Your task to perform on an android device: clear history in the chrome app Image 0: 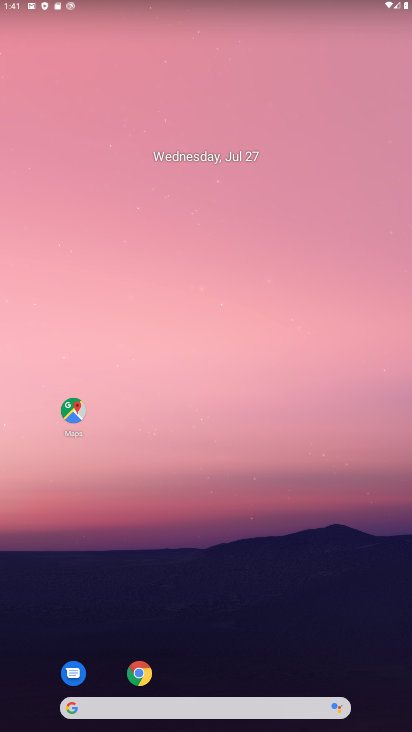
Step 0: click (134, 664)
Your task to perform on an android device: clear history in the chrome app Image 1: 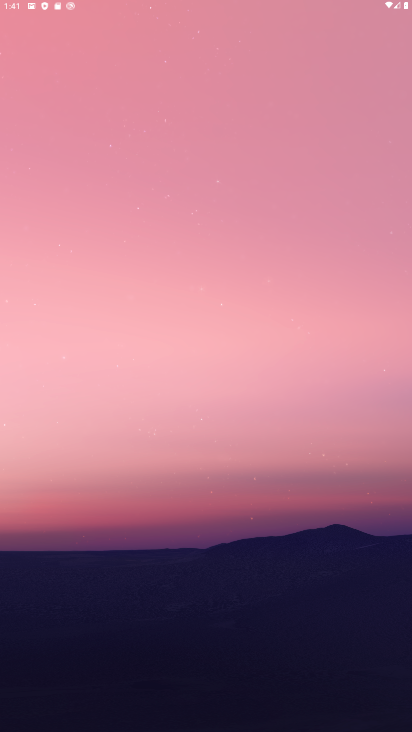
Step 1: click (143, 676)
Your task to perform on an android device: clear history in the chrome app Image 2: 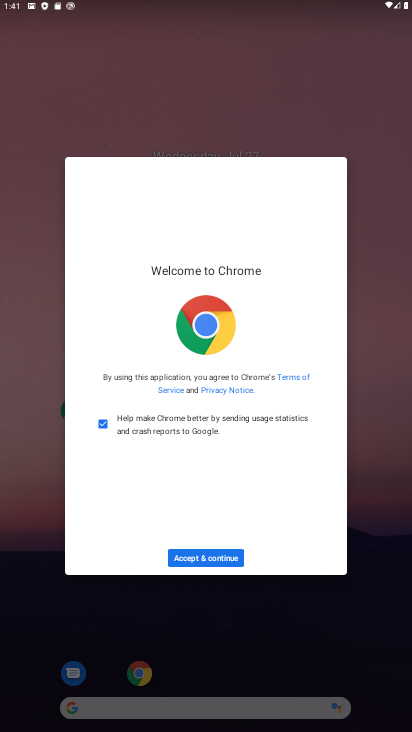
Step 2: click (190, 558)
Your task to perform on an android device: clear history in the chrome app Image 3: 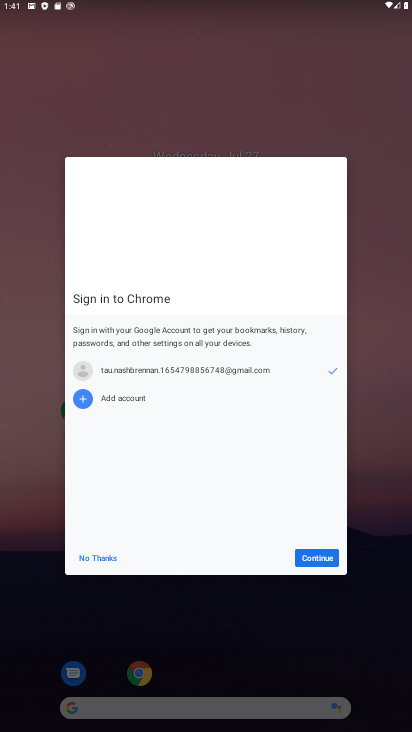
Step 3: click (310, 558)
Your task to perform on an android device: clear history in the chrome app Image 4: 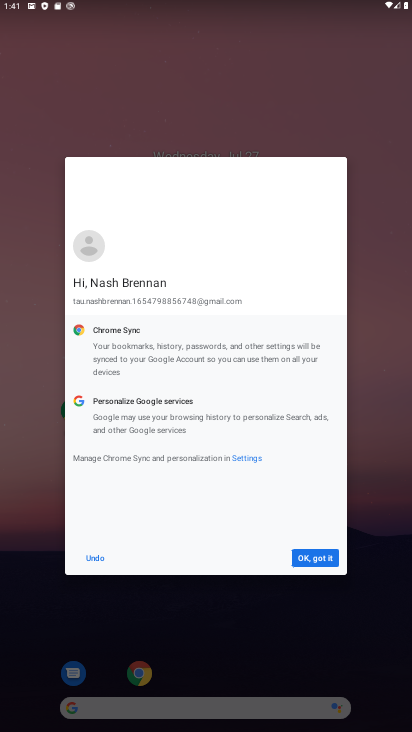
Step 4: click (310, 558)
Your task to perform on an android device: clear history in the chrome app Image 5: 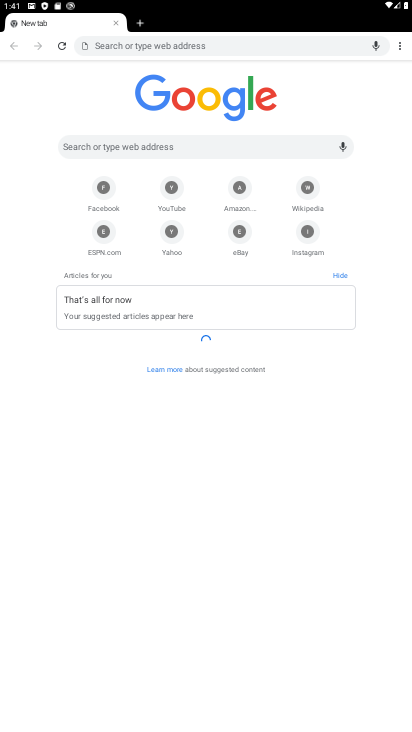
Step 5: click (406, 49)
Your task to perform on an android device: clear history in the chrome app Image 6: 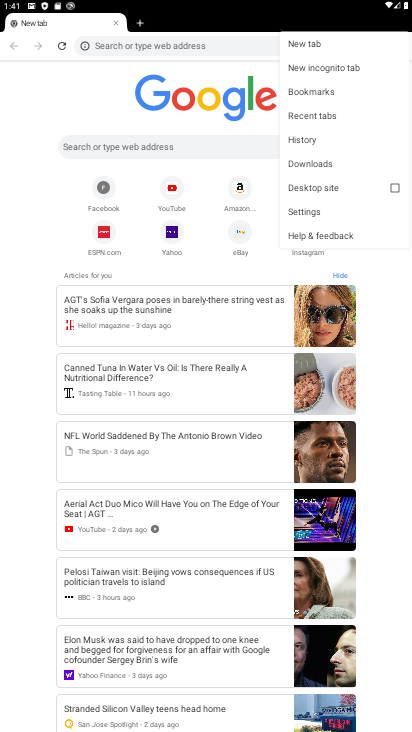
Step 6: click (308, 137)
Your task to perform on an android device: clear history in the chrome app Image 7: 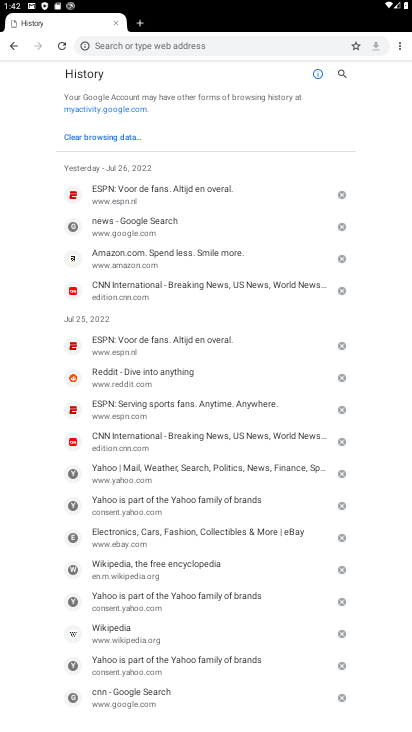
Step 7: click (105, 147)
Your task to perform on an android device: clear history in the chrome app Image 8: 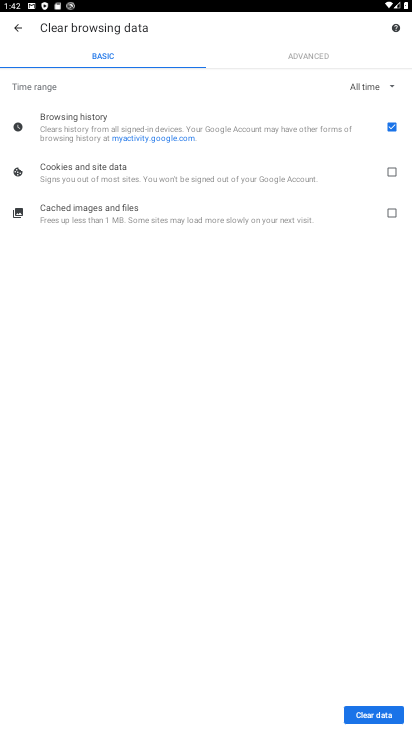
Step 8: click (372, 715)
Your task to perform on an android device: clear history in the chrome app Image 9: 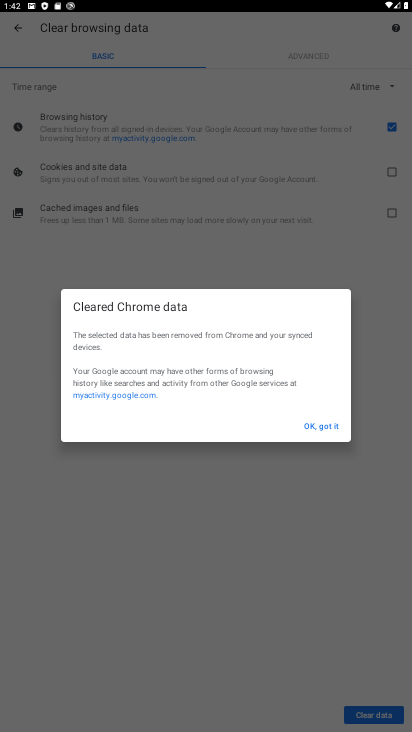
Step 9: click (317, 430)
Your task to perform on an android device: clear history in the chrome app Image 10: 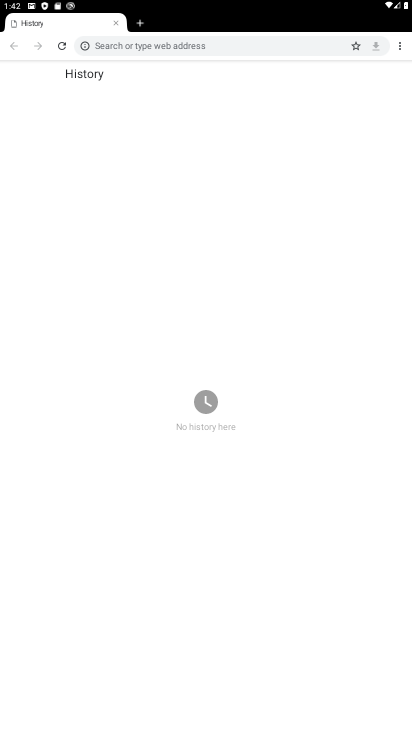
Step 10: task complete